Your task to perform on an android device: Do I have any events tomorrow? Image 0: 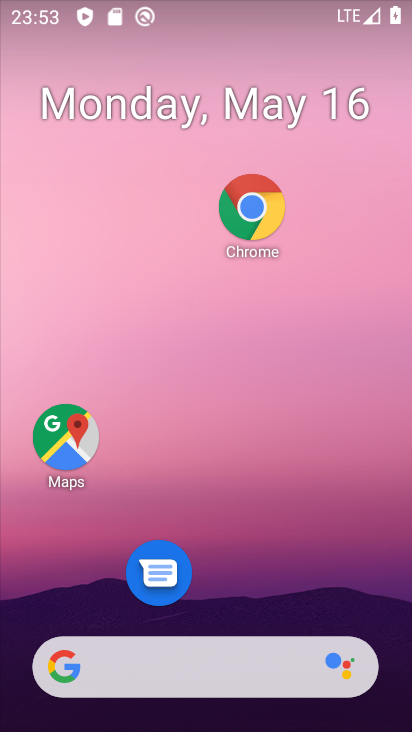
Step 0: drag from (176, 647) to (277, 43)
Your task to perform on an android device: Do I have any events tomorrow? Image 1: 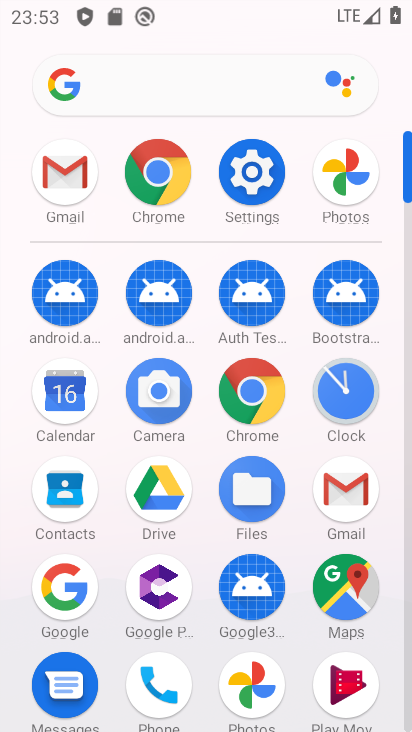
Step 1: click (58, 390)
Your task to perform on an android device: Do I have any events tomorrow? Image 2: 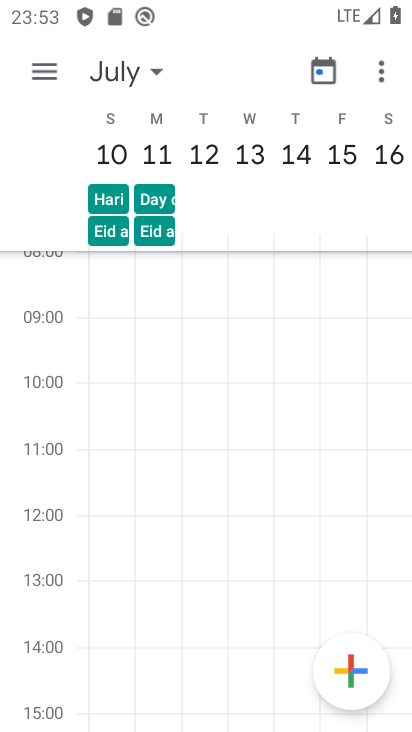
Step 2: click (151, 64)
Your task to perform on an android device: Do I have any events tomorrow? Image 3: 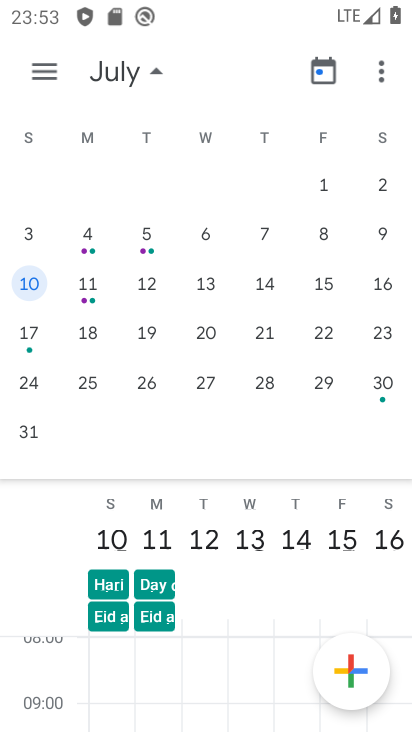
Step 3: drag from (94, 315) to (337, 323)
Your task to perform on an android device: Do I have any events tomorrow? Image 4: 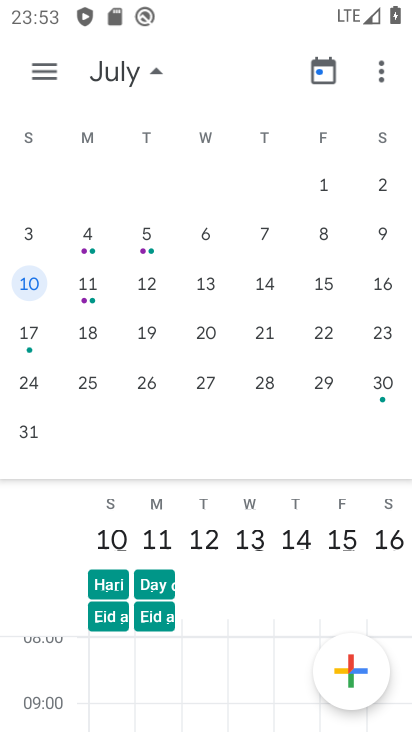
Step 4: drag from (44, 347) to (404, 329)
Your task to perform on an android device: Do I have any events tomorrow? Image 5: 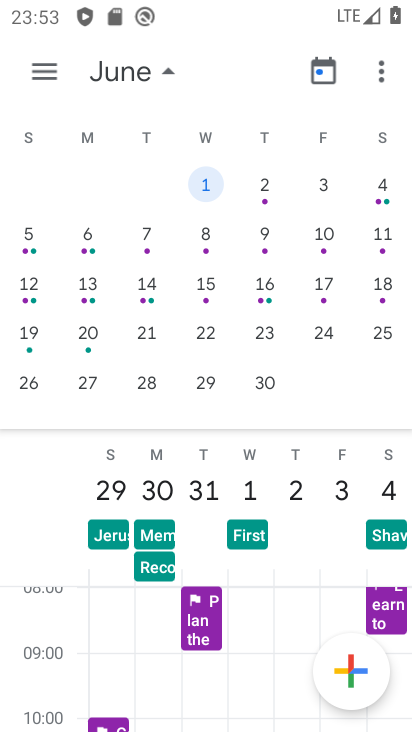
Step 5: drag from (48, 338) to (391, 335)
Your task to perform on an android device: Do I have any events tomorrow? Image 6: 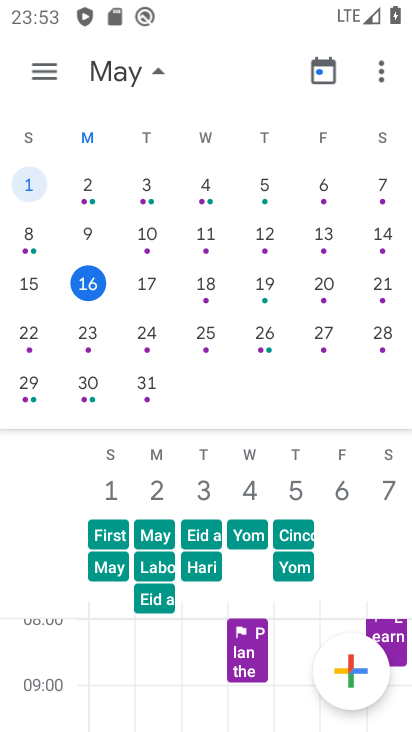
Step 6: click (200, 285)
Your task to perform on an android device: Do I have any events tomorrow? Image 7: 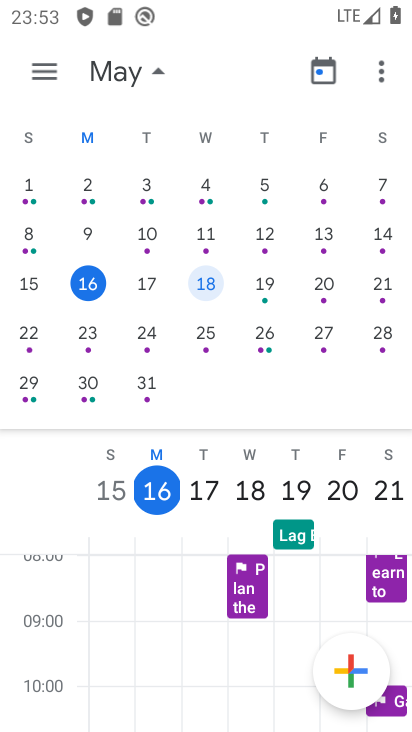
Step 7: task complete